Your task to perform on an android device: check storage Image 0: 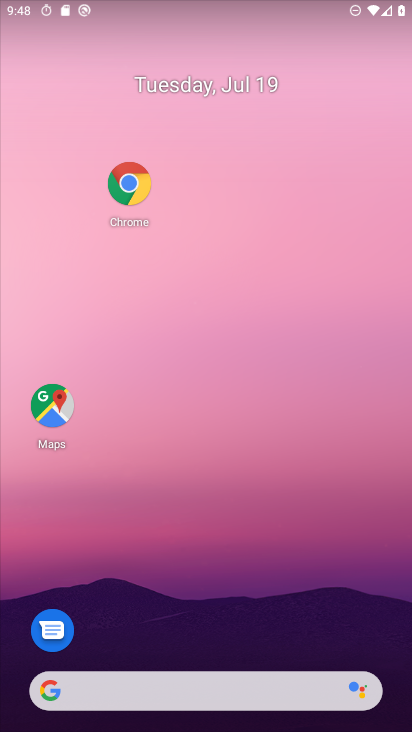
Step 0: drag from (190, 656) to (325, 9)
Your task to perform on an android device: check storage Image 1: 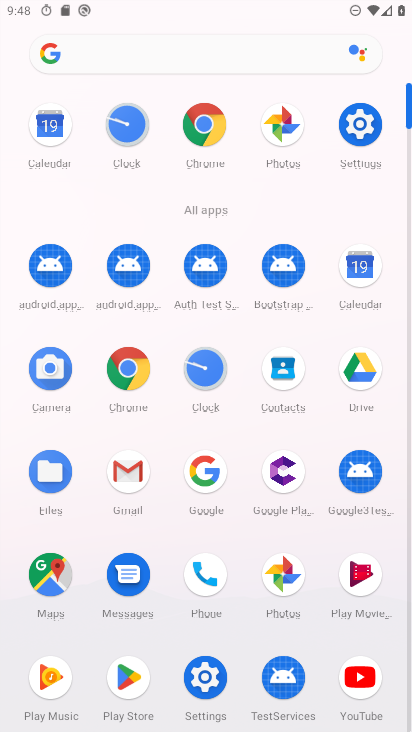
Step 1: click (356, 137)
Your task to perform on an android device: check storage Image 2: 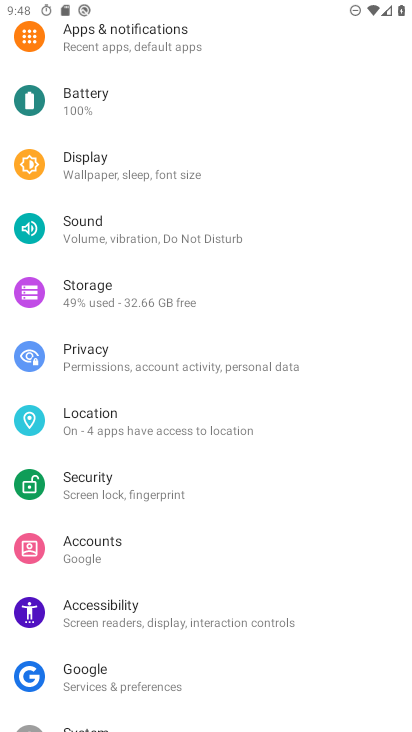
Step 2: click (88, 288)
Your task to perform on an android device: check storage Image 3: 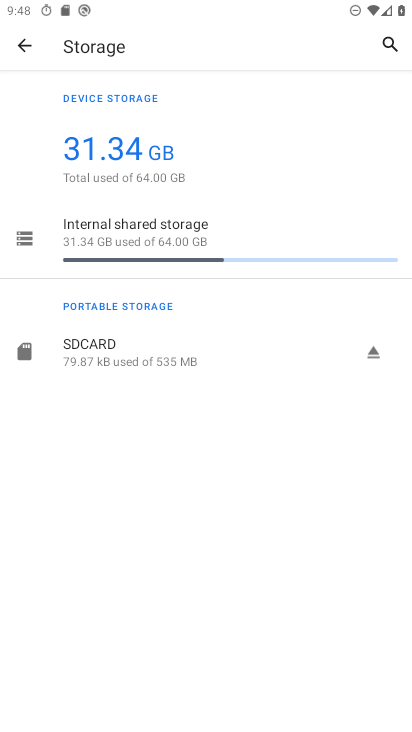
Step 3: click (119, 219)
Your task to perform on an android device: check storage Image 4: 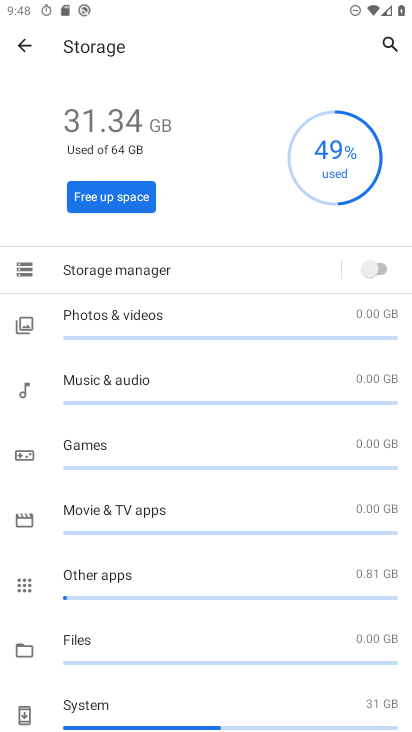
Step 4: task complete